Your task to perform on an android device: all mails in gmail Image 0: 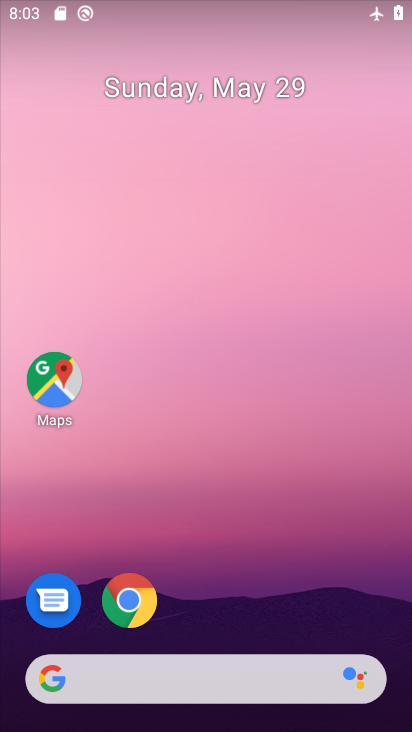
Step 0: drag from (202, 620) to (330, 3)
Your task to perform on an android device: all mails in gmail Image 1: 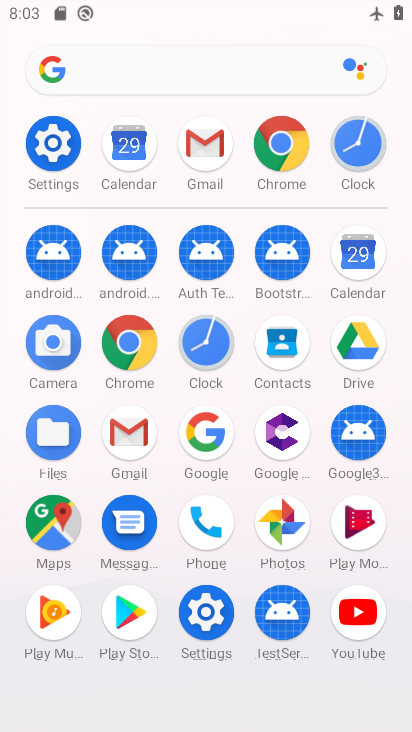
Step 1: click (132, 437)
Your task to perform on an android device: all mails in gmail Image 2: 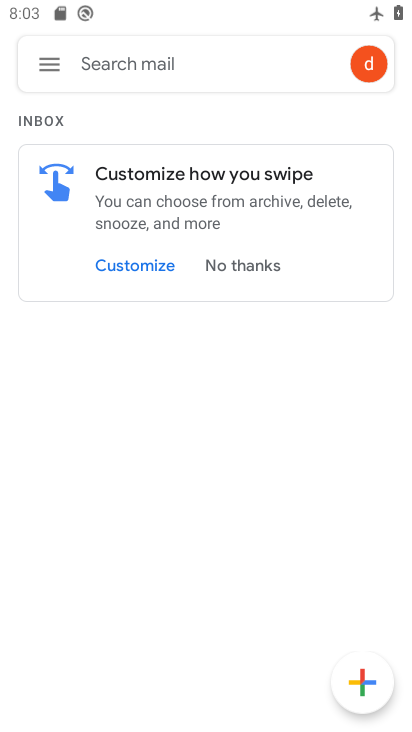
Step 2: click (64, 65)
Your task to perform on an android device: all mails in gmail Image 3: 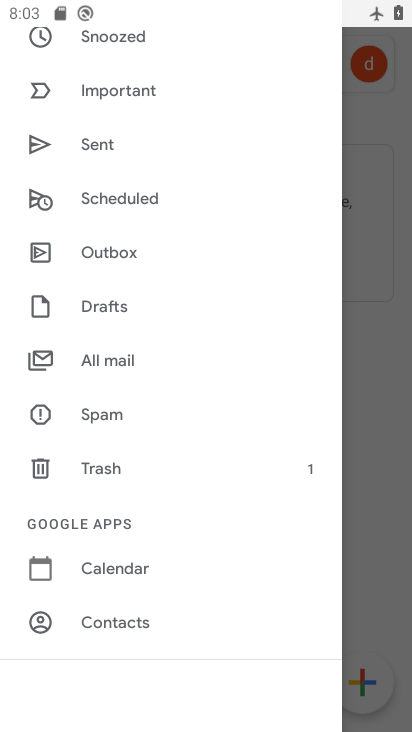
Step 3: click (138, 363)
Your task to perform on an android device: all mails in gmail Image 4: 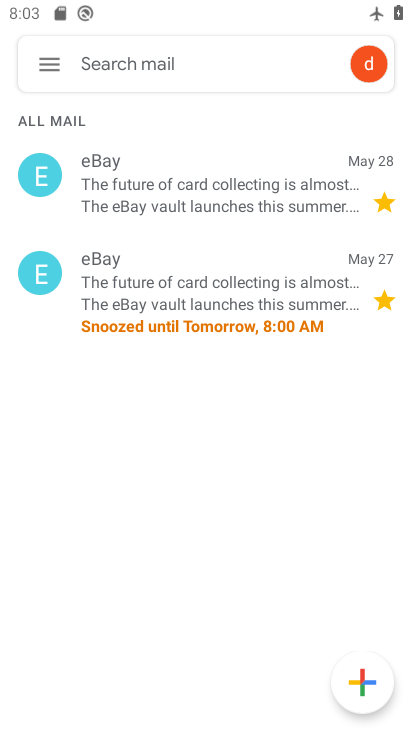
Step 4: task complete